Your task to perform on an android device: Go to settings Image 0: 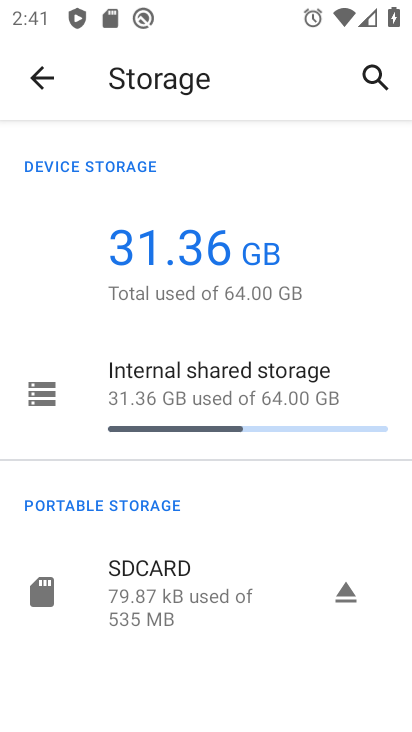
Step 0: press home button
Your task to perform on an android device: Go to settings Image 1: 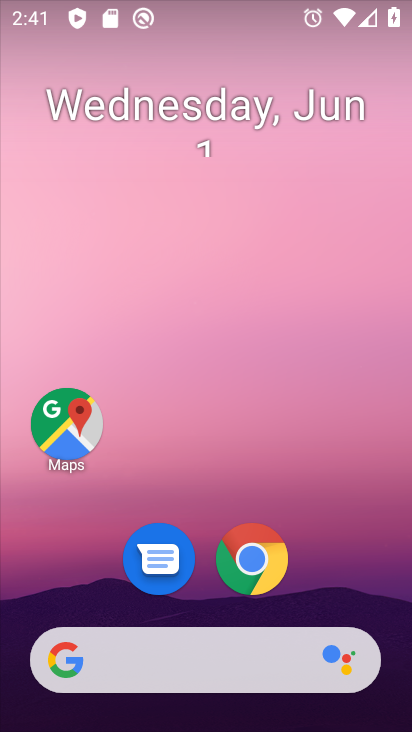
Step 1: drag from (324, 600) to (325, 8)
Your task to perform on an android device: Go to settings Image 2: 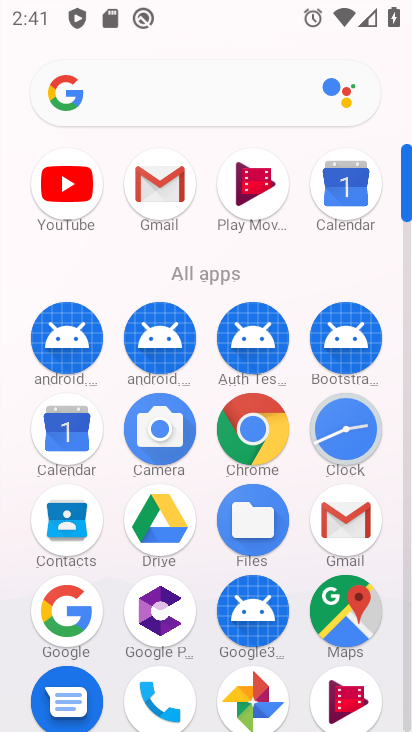
Step 2: drag from (212, 563) to (213, 238)
Your task to perform on an android device: Go to settings Image 3: 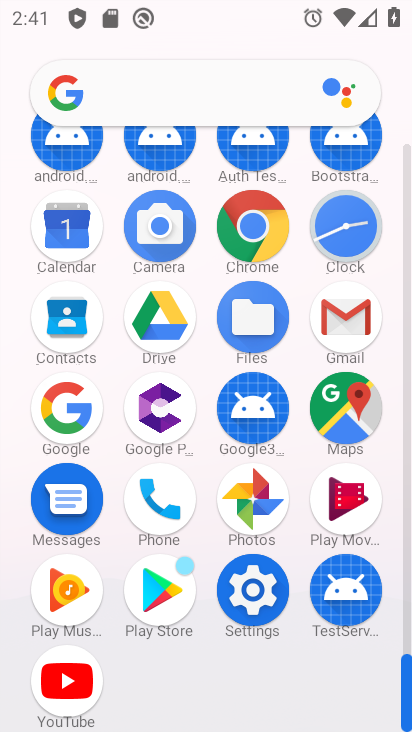
Step 3: click (252, 592)
Your task to perform on an android device: Go to settings Image 4: 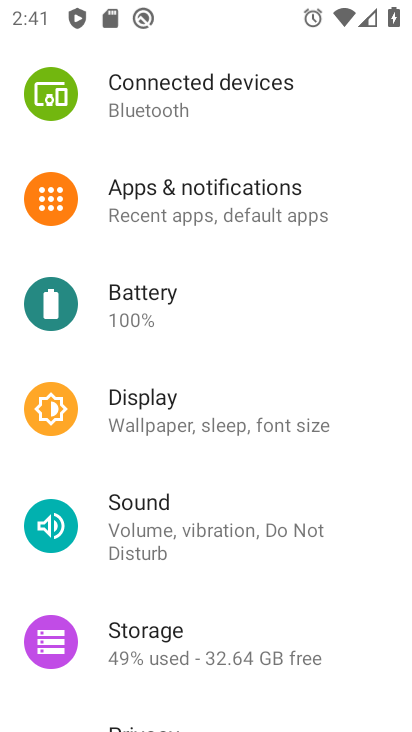
Step 4: task complete